Your task to perform on an android device: open chrome privacy settings Image 0: 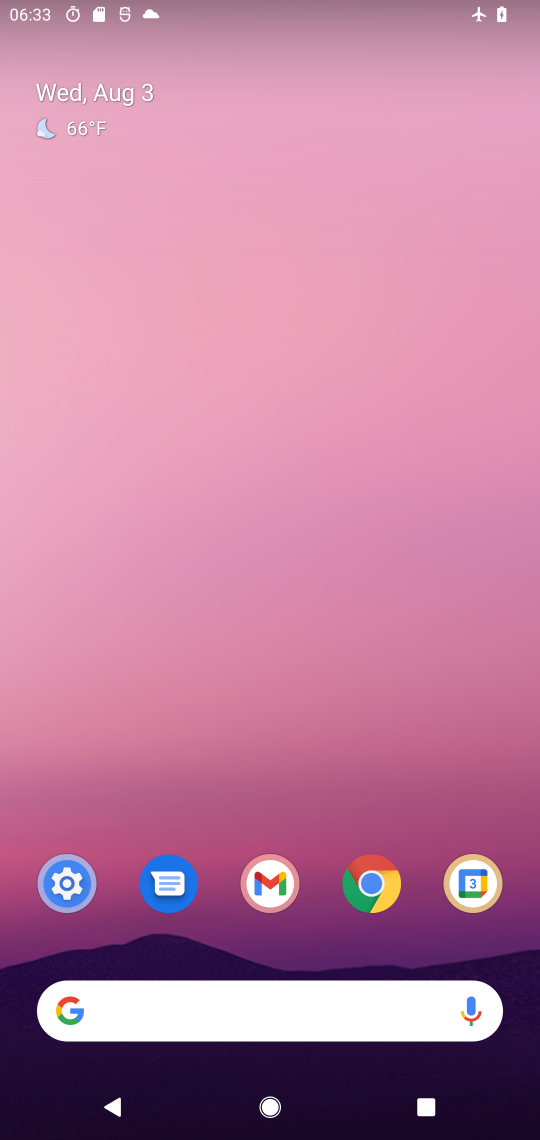
Step 0: click (366, 889)
Your task to perform on an android device: open chrome privacy settings Image 1: 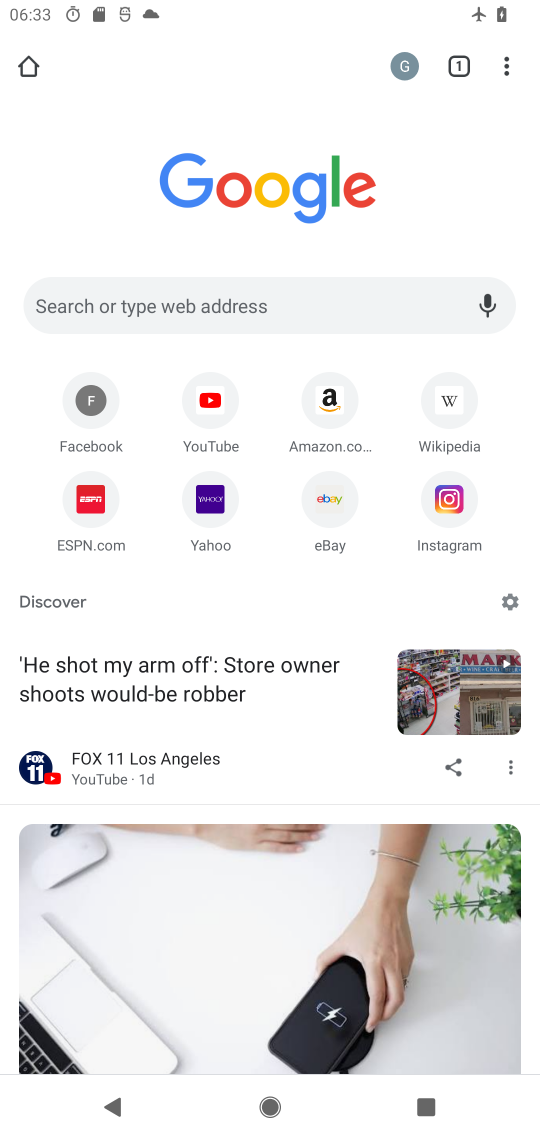
Step 1: click (497, 68)
Your task to perform on an android device: open chrome privacy settings Image 2: 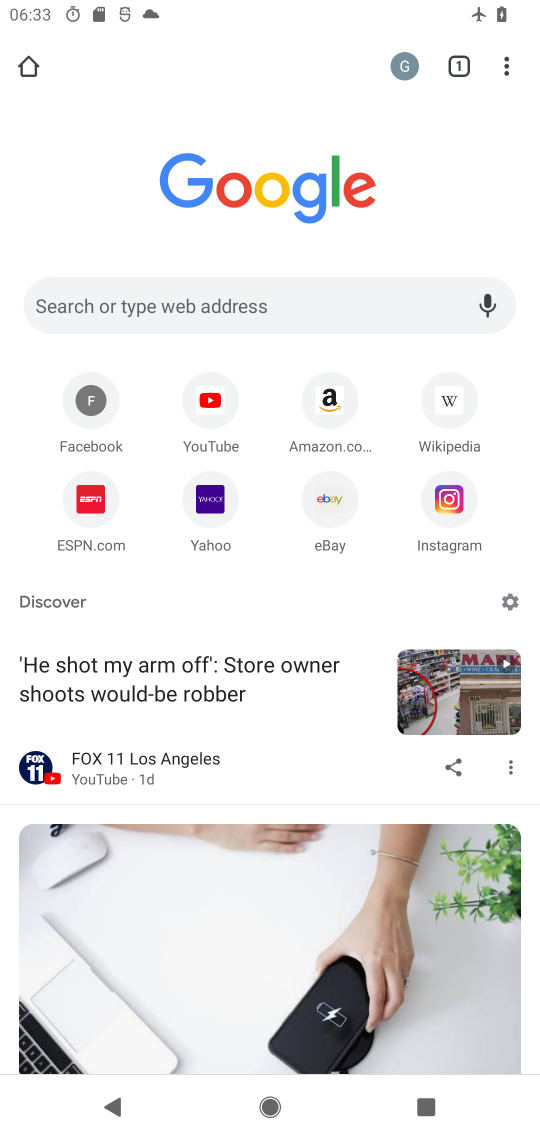
Step 2: click (504, 67)
Your task to perform on an android device: open chrome privacy settings Image 3: 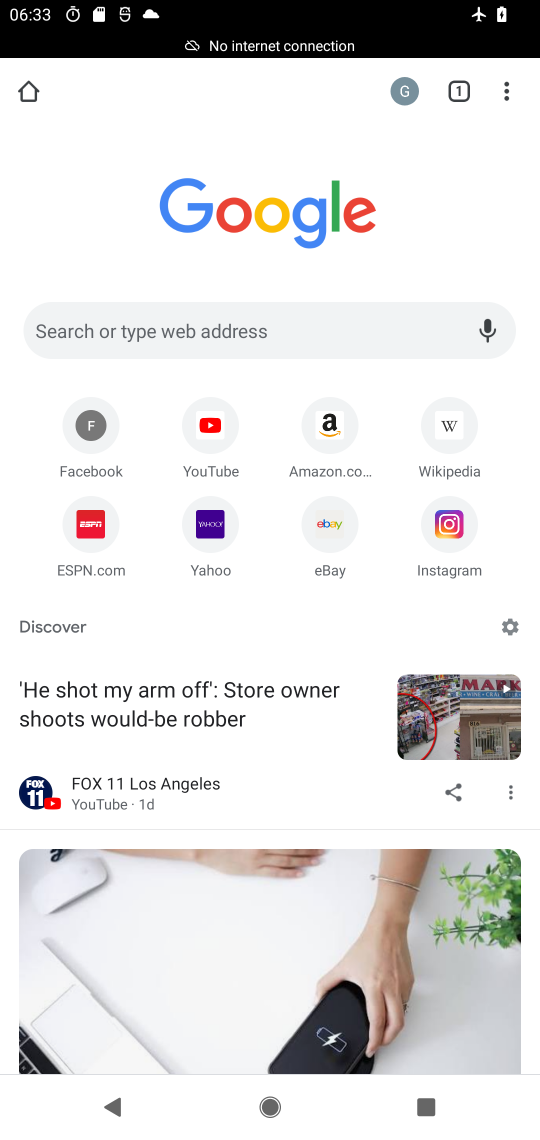
Step 3: click (512, 96)
Your task to perform on an android device: open chrome privacy settings Image 4: 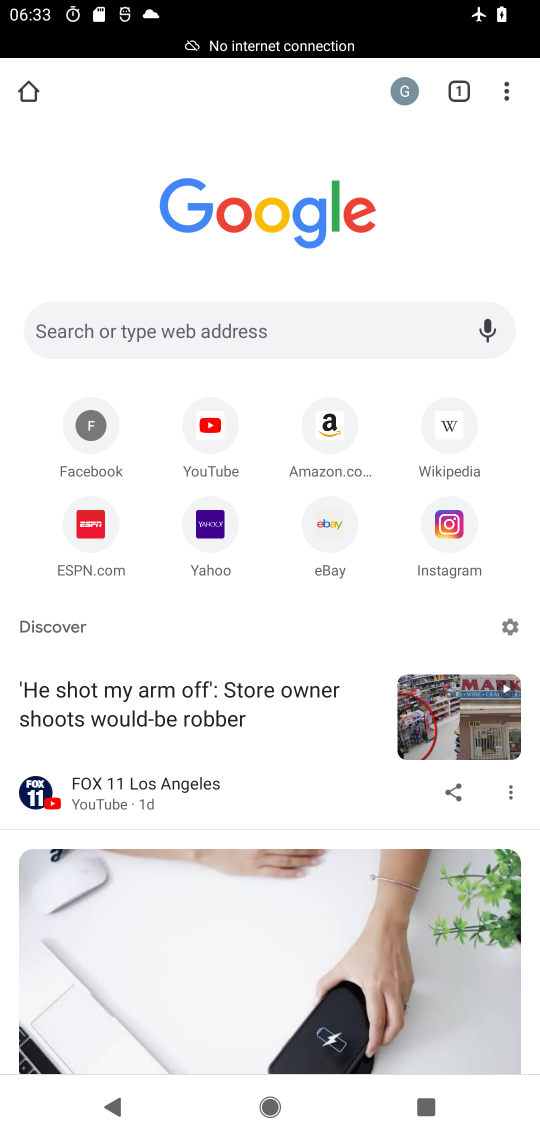
Step 4: click (504, 92)
Your task to perform on an android device: open chrome privacy settings Image 5: 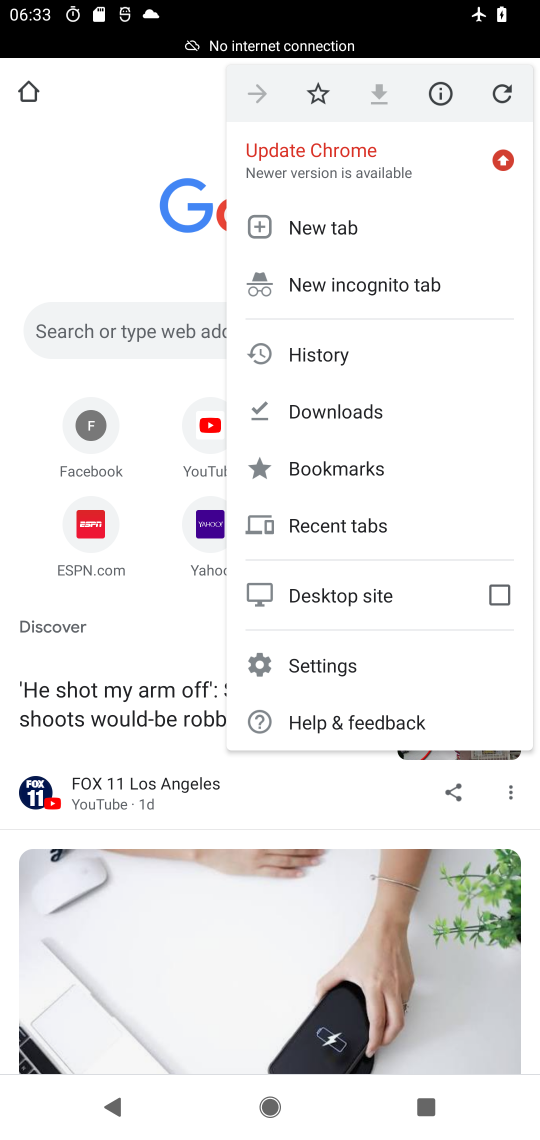
Step 5: click (318, 664)
Your task to perform on an android device: open chrome privacy settings Image 6: 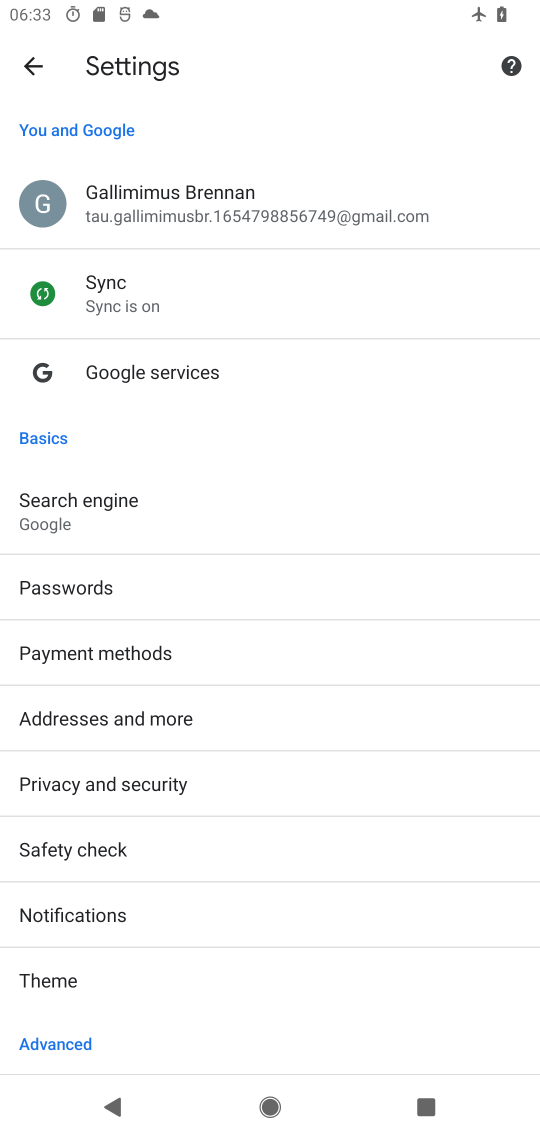
Step 6: click (85, 780)
Your task to perform on an android device: open chrome privacy settings Image 7: 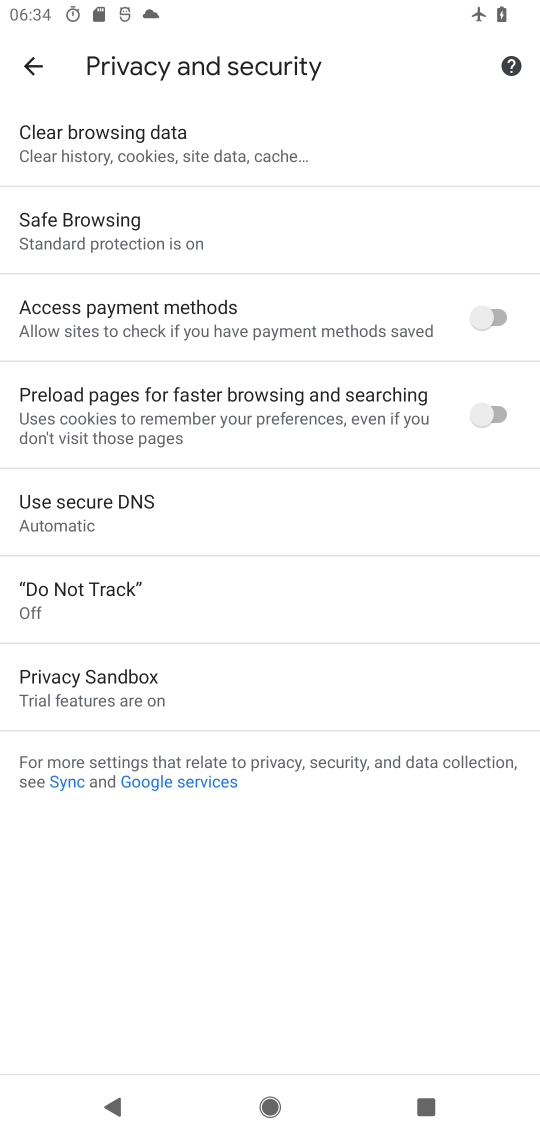
Step 7: task complete